Your task to perform on an android device: Go to Google maps Image 0: 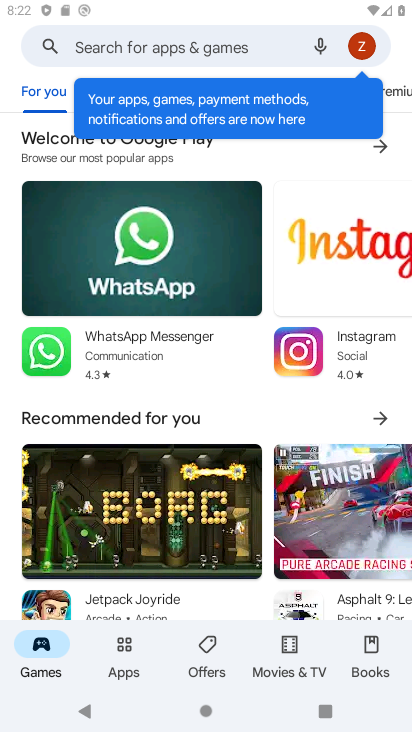
Step 0: press home button
Your task to perform on an android device: Go to Google maps Image 1: 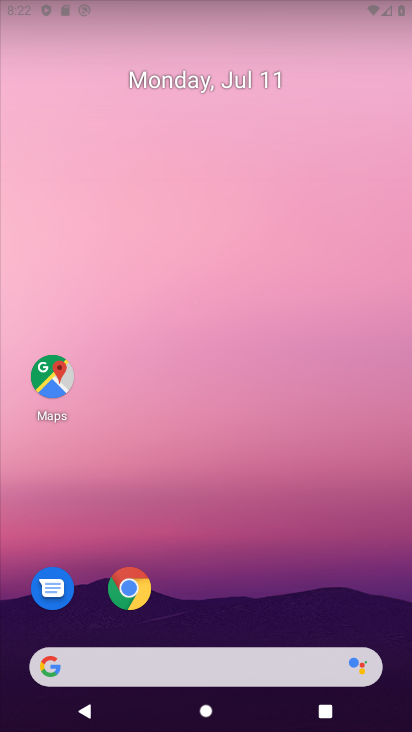
Step 1: click (48, 395)
Your task to perform on an android device: Go to Google maps Image 2: 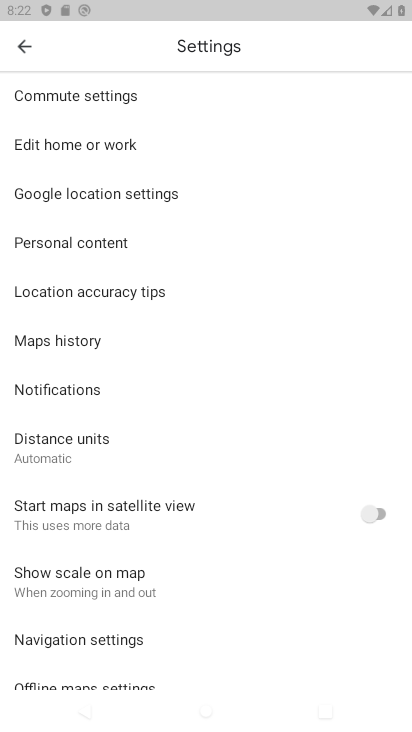
Step 2: click (27, 43)
Your task to perform on an android device: Go to Google maps Image 3: 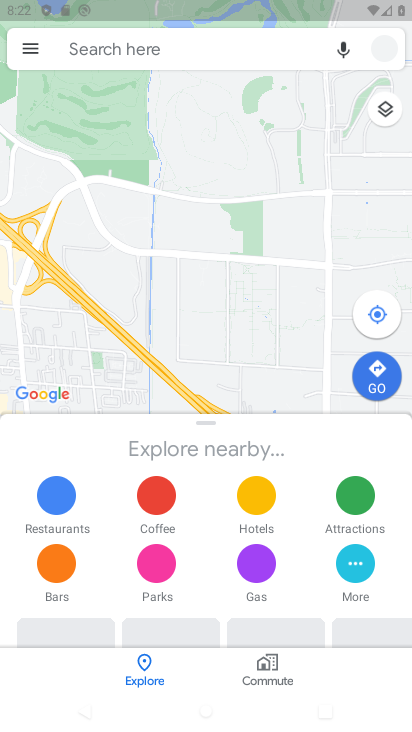
Step 3: task complete